Your task to perform on an android device: turn pop-ups on in chrome Image 0: 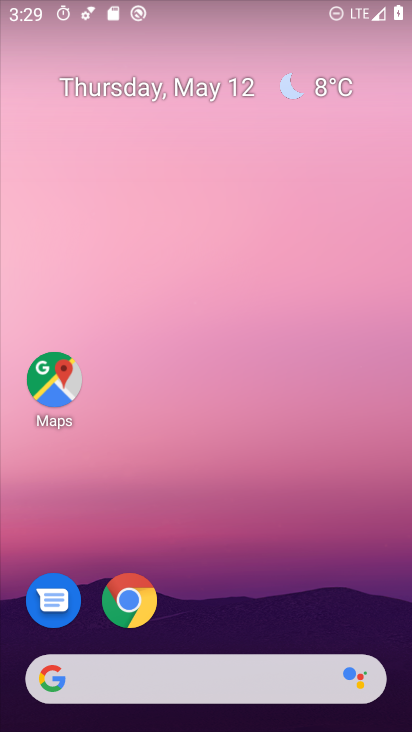
Step 0: click (135, 601)
Your task to perform on an android device: turn pop-ups on in chrome Image 1: 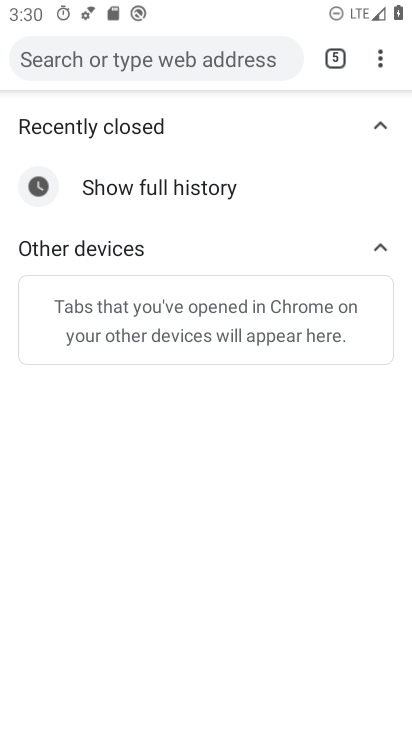
Step 1: click (380, 60)
Your task to perform on an android device: turn pop-ups on in chrome Image 2: 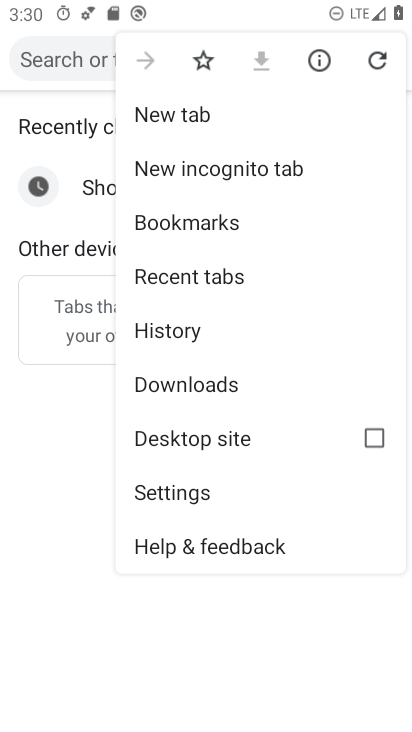
Step 2: click (171, 494)
Your task to perform on an android device: turn pop-ups on in chrome Image 3: 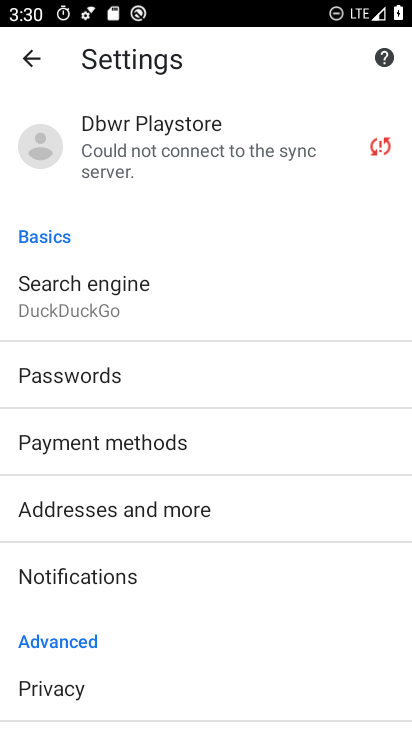
Step 3: drag from (154, 669) to (158, 290)
Your task to perform on an android device: turn pop-ups on in chrome Image 4: 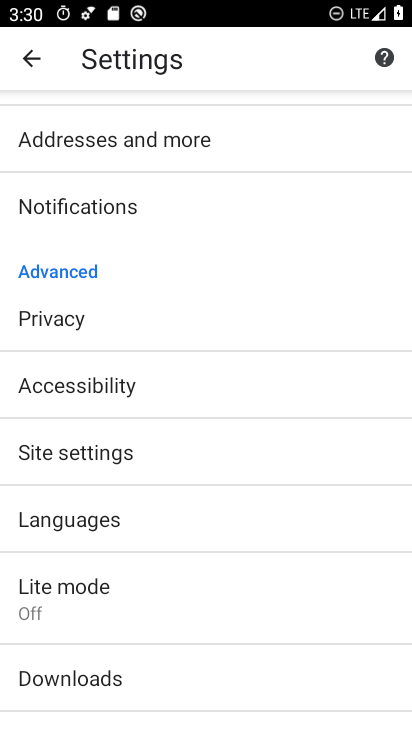
Step 4: click (119, 449)
Your task to perform on an android device: turn pop-ups on in chrome Image 5: 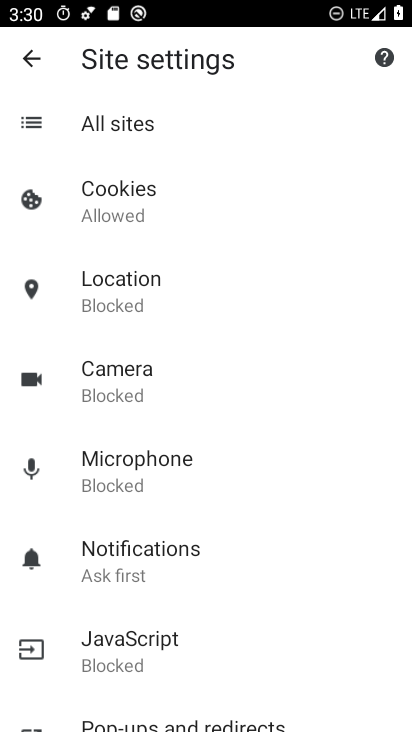
Step 5: drag from (159, 671) to (159, 322)
Your task to perform on an android device: turn pop-ups on in chrome Image 6: 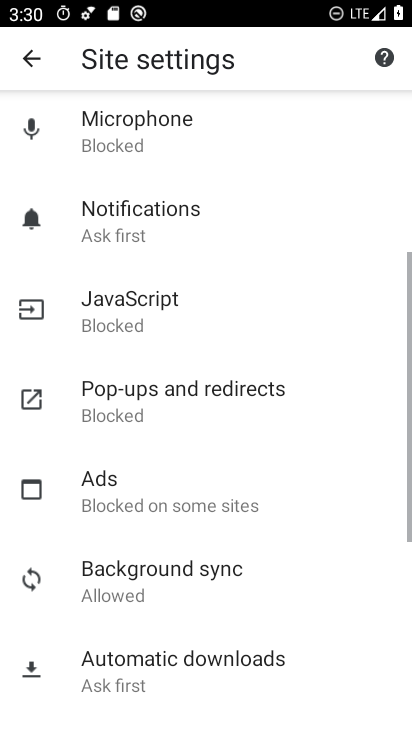
Step 6: click (149, 387)
Your task to perform on an android device: turn pop-ups on in chrome Image 7: 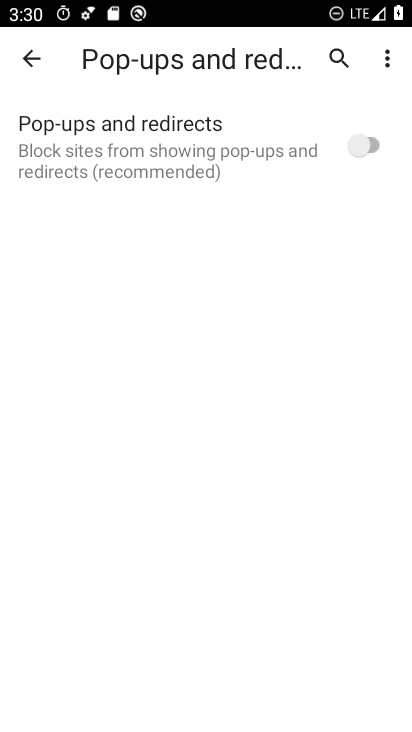
Step 7: click (372, 146)
Your task to perform on an android device: turn pop-ups on in chrome Image 8: 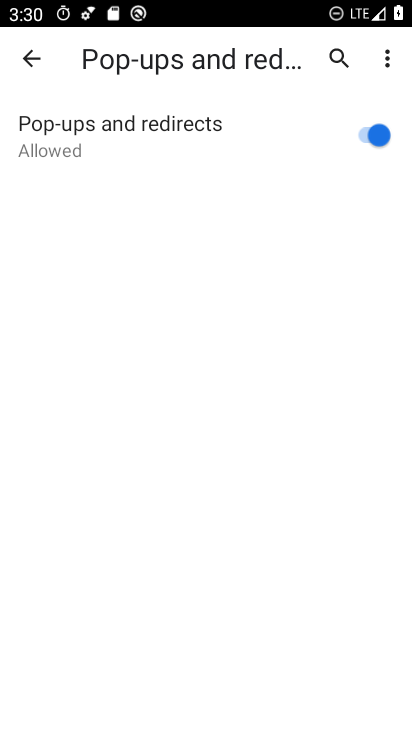
Step 8: task complete